Your task to perform on an android device: Find coffee shops on Maps Image 0: 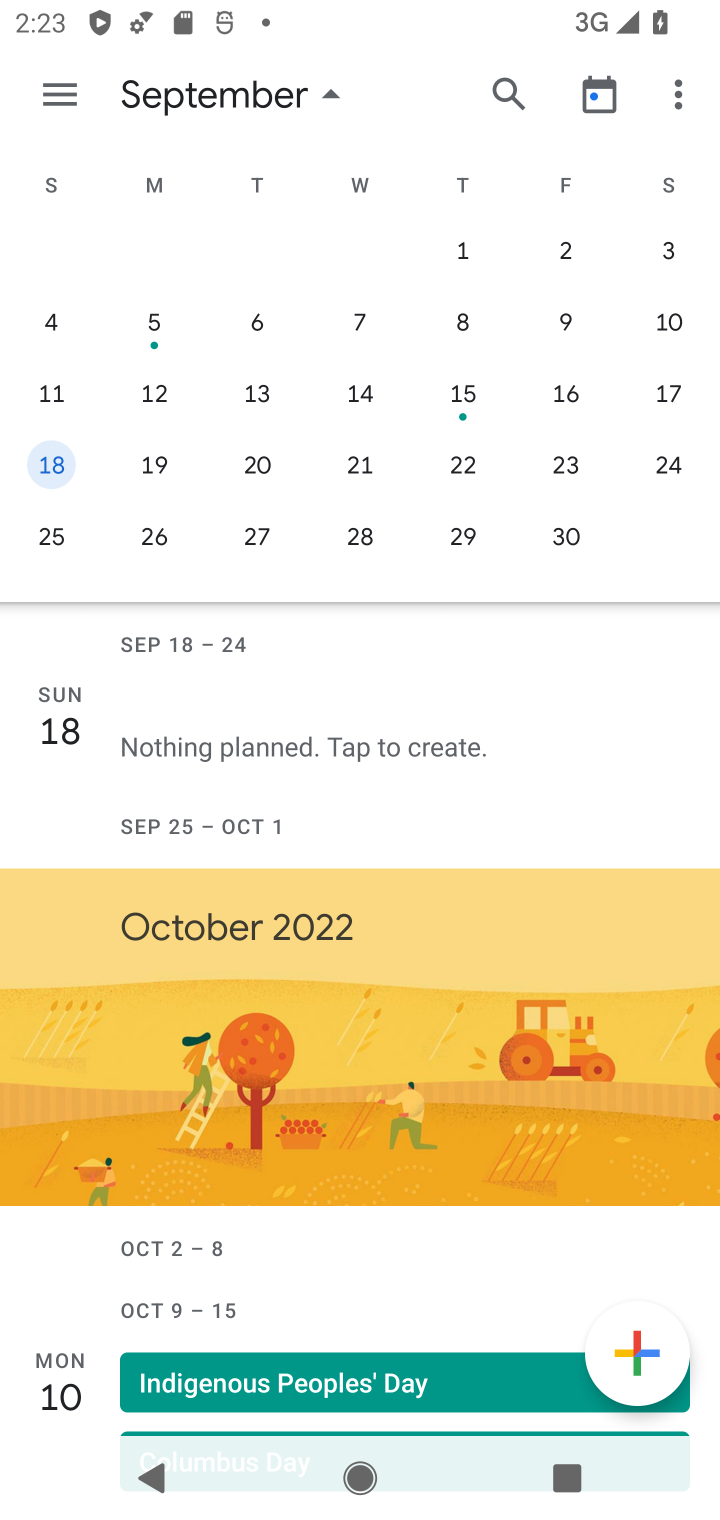
Step 0: press home button
Your task to perform on an android device: Find coffee shops on Maps Image 1: 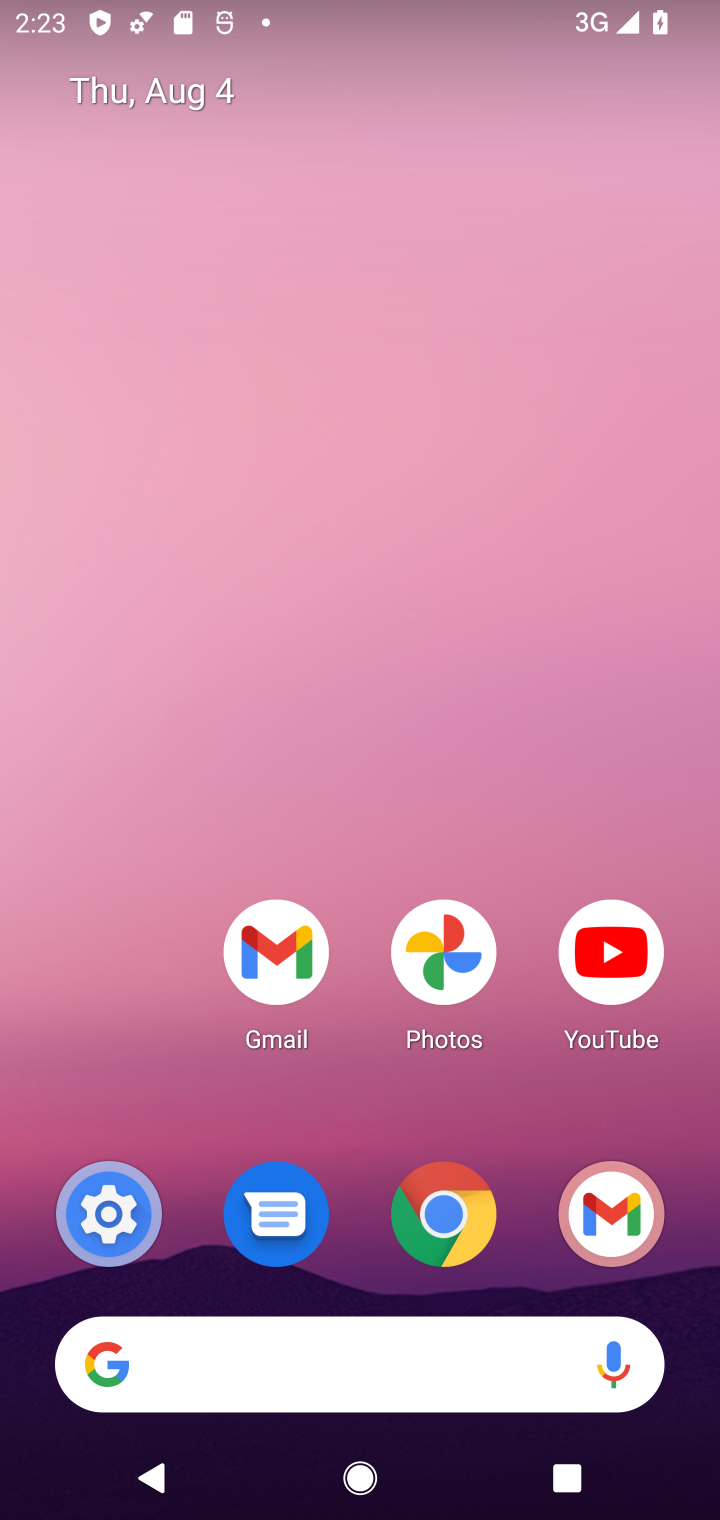
Step 1: drag from (122, 1071) to (187, 1)
Your task to perform on an android device: Find coffee shops on Maps Image 2: 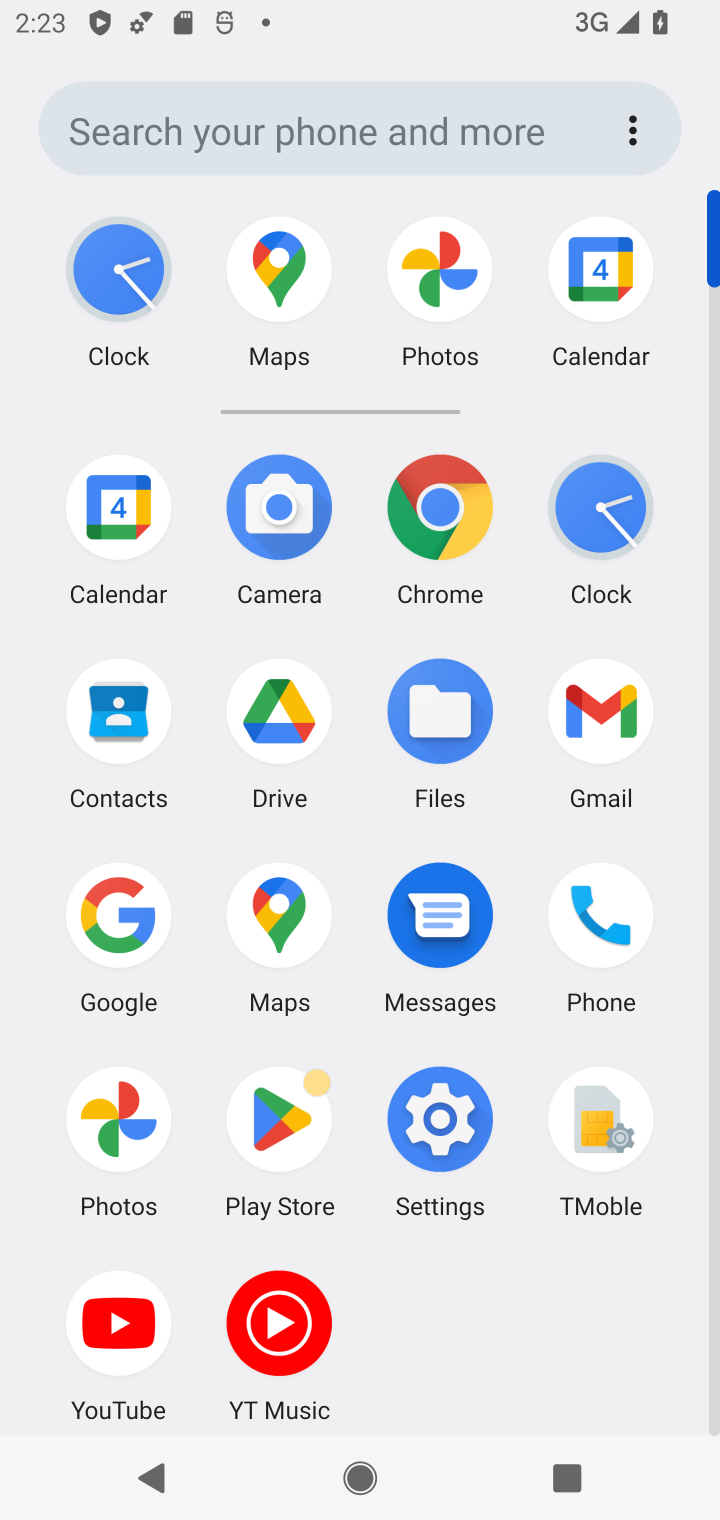
Step 2: click (253, 937)
Your task to perform on an android device: Find coffee shops on Maps Image 3: 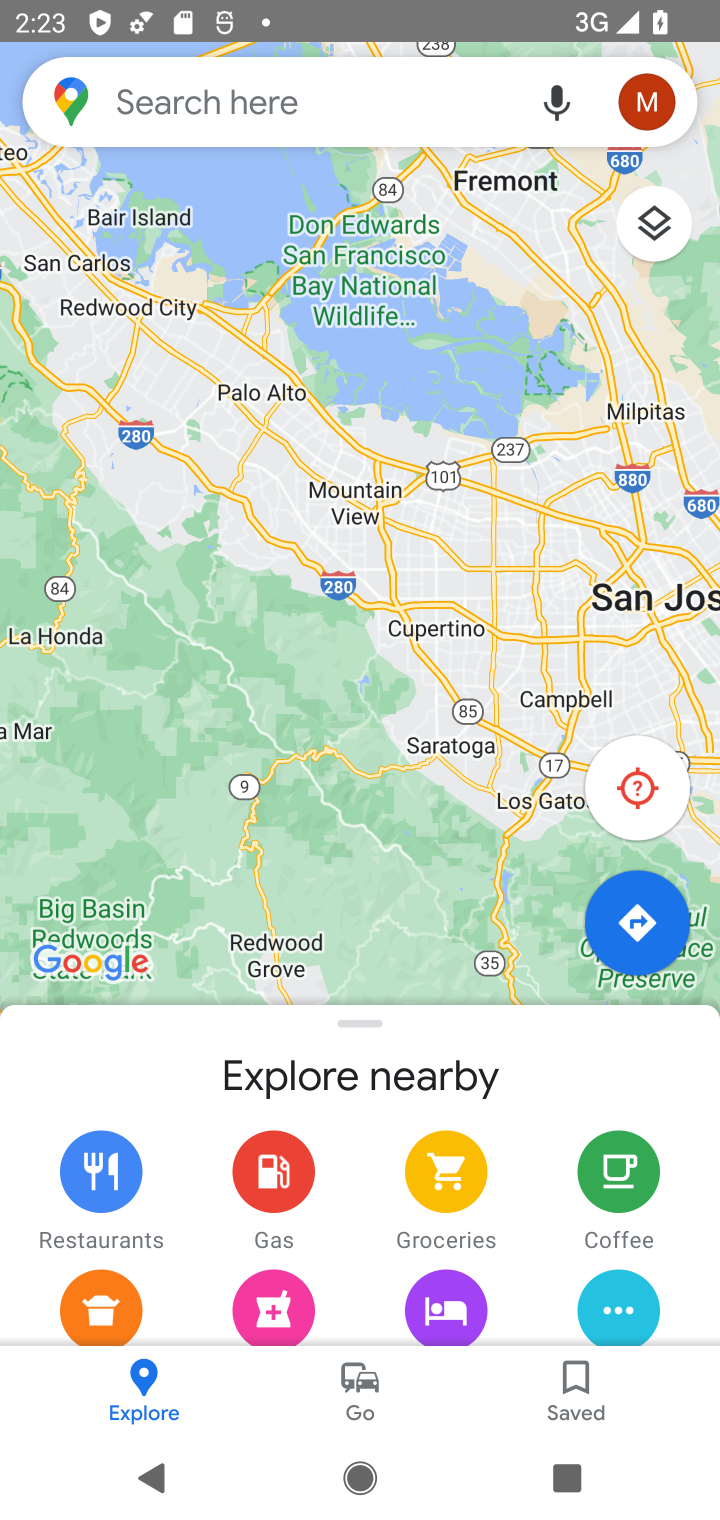
Step 3: click (249, 100)
Your task to perform on an android device: Find coffee shops on Maps Image 4: 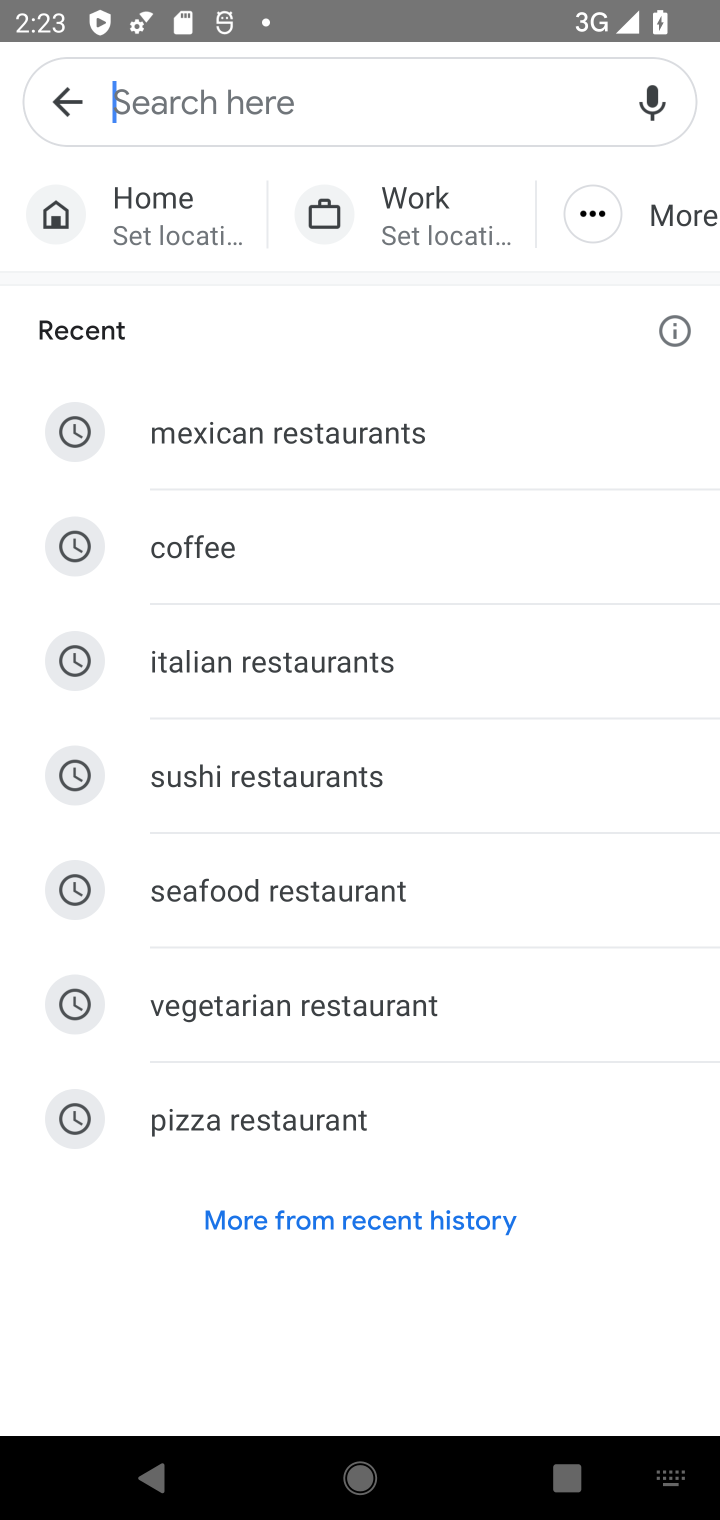
Step 4: click (217, 545)
Your task to perform on an android device: Find coffee shops on Maps Image 5: 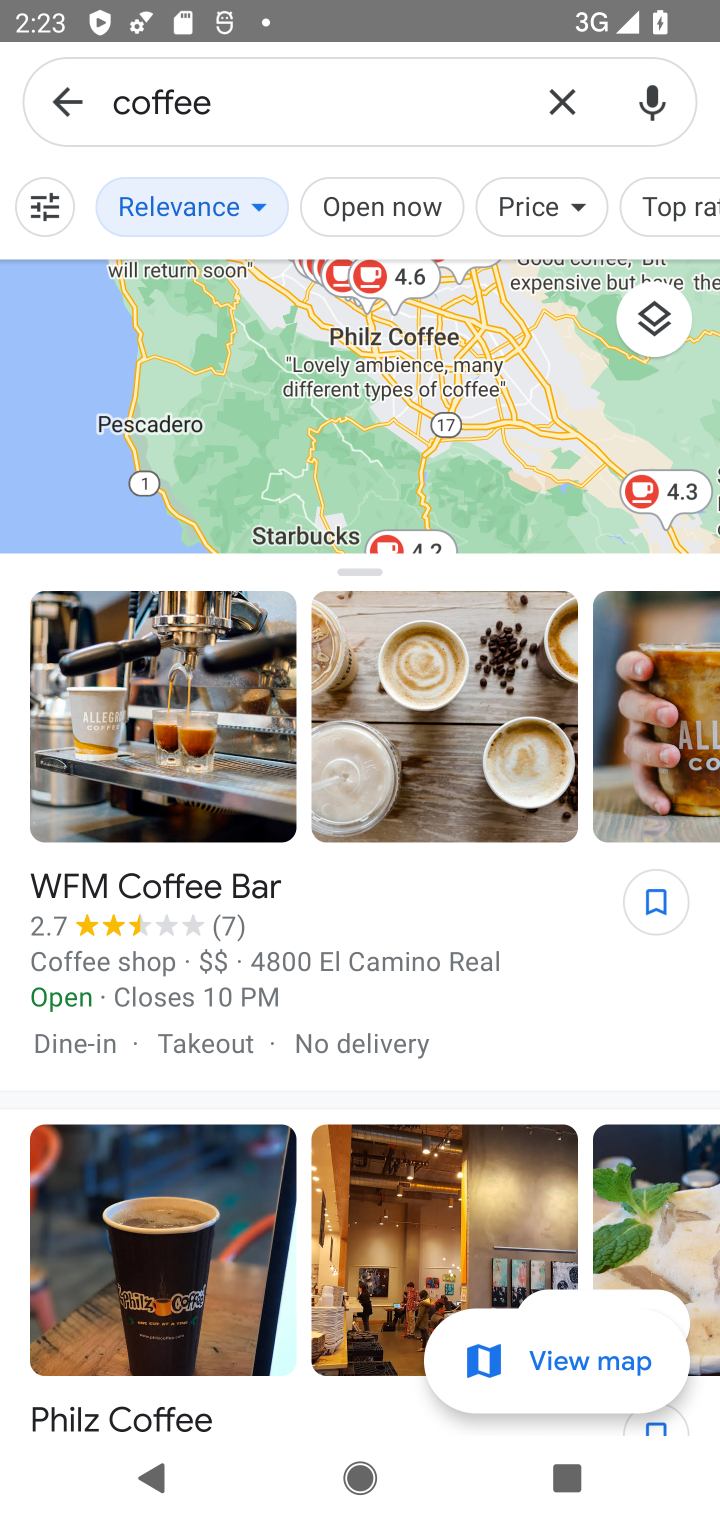
Step 5: task complete